Your task to perform on an android device: Open calendar and show me the fourth week of next month Image 0: 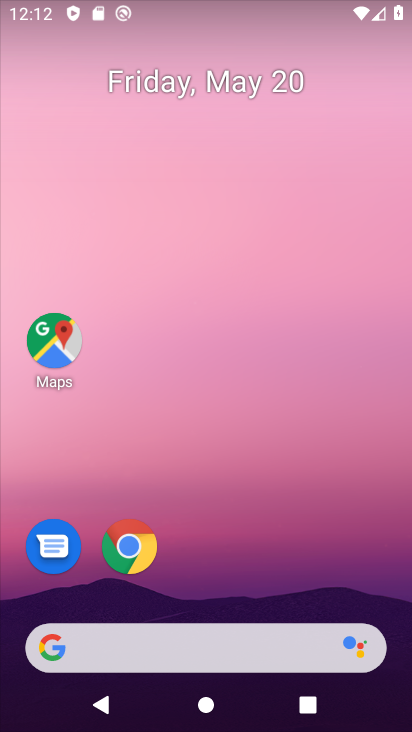
Step 0: drag from (276, 532) to (262, 52)
Your task to perform on an android device: Open calendar and show me the fourth week of next month Image 1: 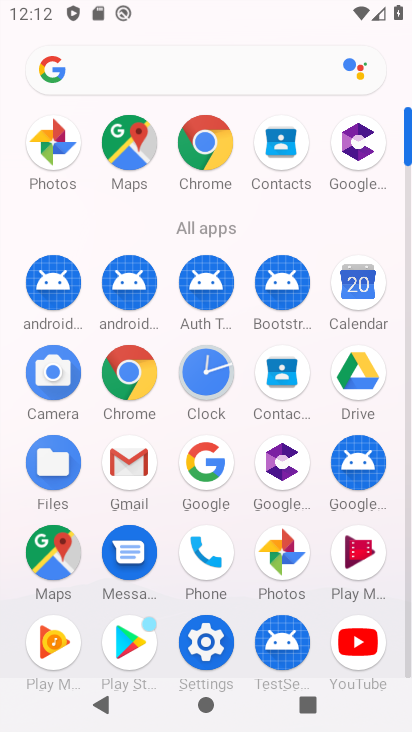
Step 1: click (358, 285)
Your task to perform on an android device: Open calendar and show me the fourth week of next month Image 2: 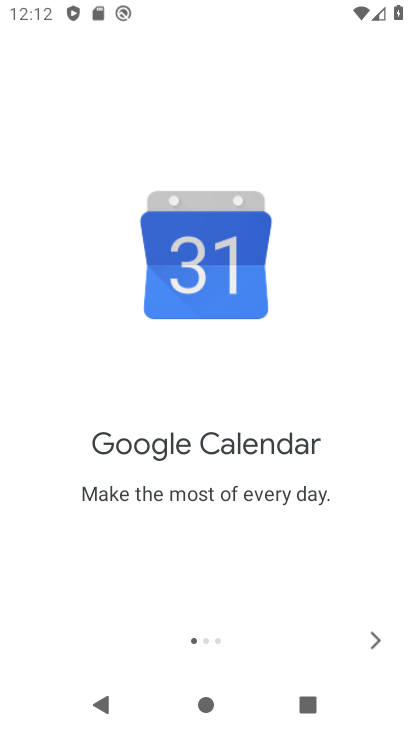
Step 2: click (370, 639)
Your task to perform on an android device: Open calendar and show me the fourth week of next month Image 3: 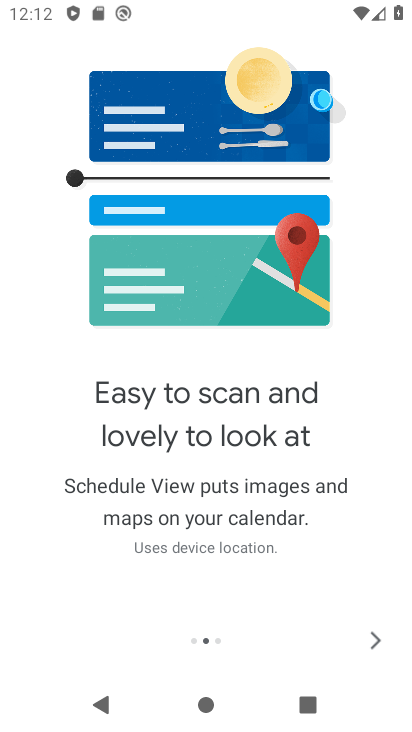
Step 3: click (370, 636)
Your task to perform on an android device: Open calendar and show me the fourth week of next month Image 4: 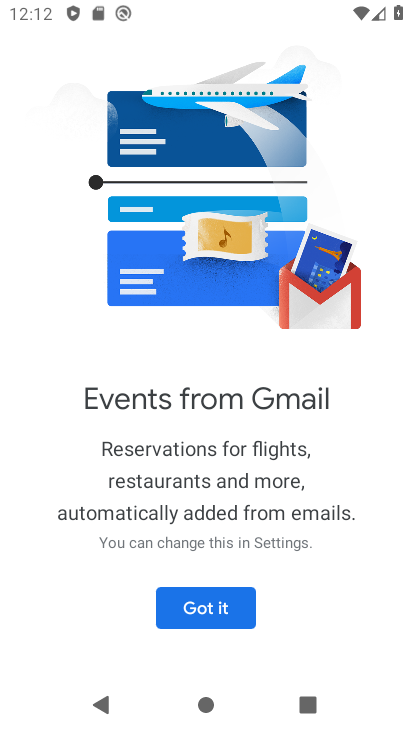
Step 4: click (242, 606)
Your task to perform on an android device: Open calendar and show me the fourth week of next month Image 5: 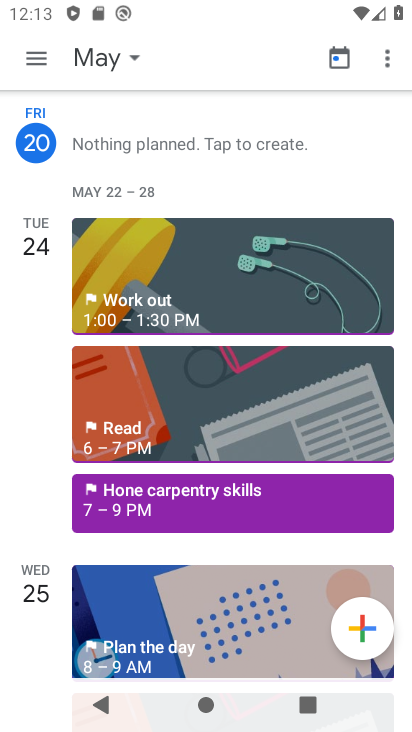
Step 5: click (40, 61)
Your task to perform on an android device: Open calendar and show me the fourth week of next month Image 6: 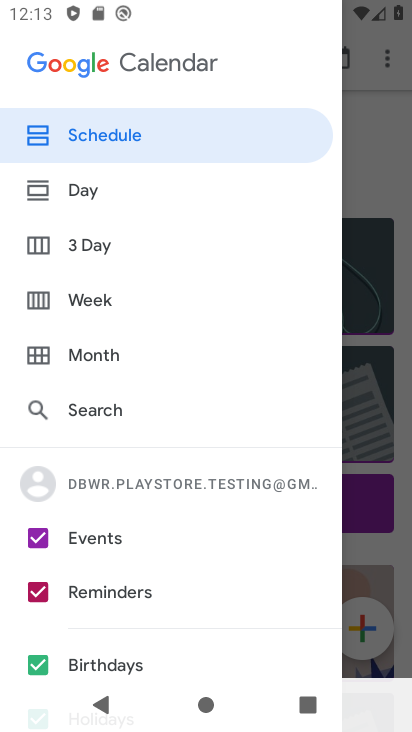
Step 6: click (42, 359)
Your task to perform on an android device: Open calendar and show me the fourth week of next month Image 7: 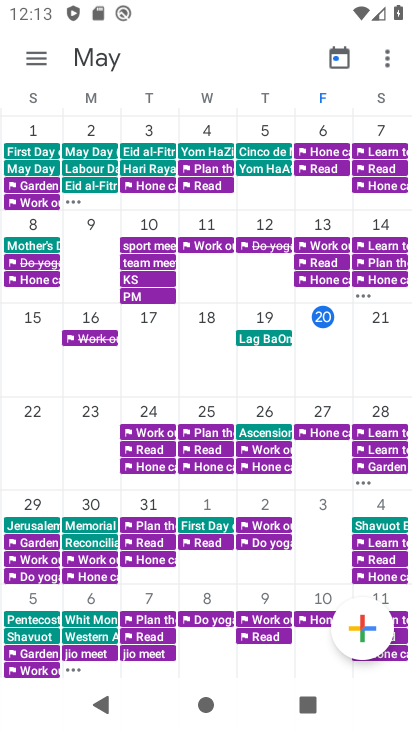
Step 7: drag from (375, 383) to (7, 386)
Your task to perform on an android device: Open calendar and show me the fourth week of next month Image 8: 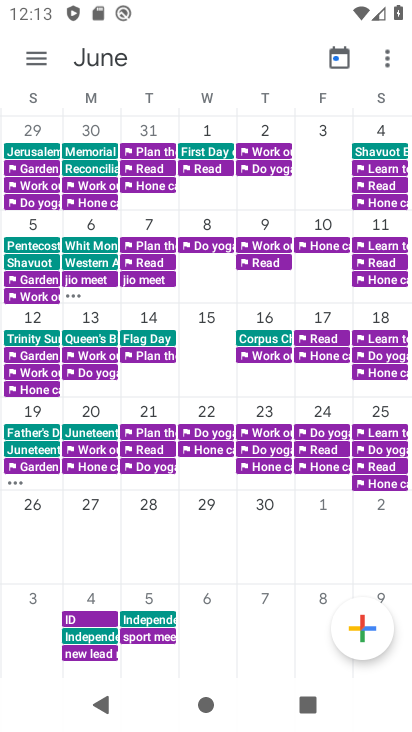
Step 8: click (30, 497)
Your task to perform on an android device: Open calendar and show me the fourth week of next month Image 9: 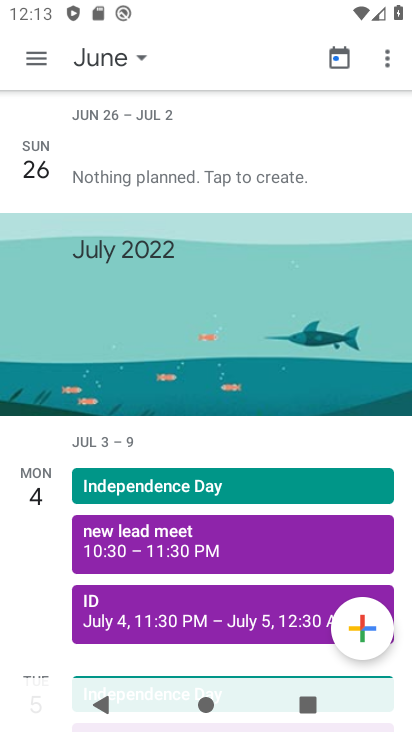
Step 9: click (35, 60)
Your task to perform on an android device: Open calendar and show me the fourth week of next month Image 10: 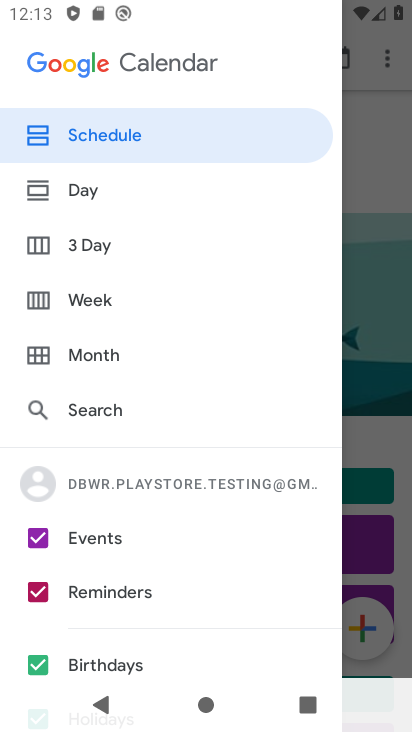
Step 10: click (43, 356)
Your task to perform on an android device: Open calendar and show me the fourth week of next month Image 11: 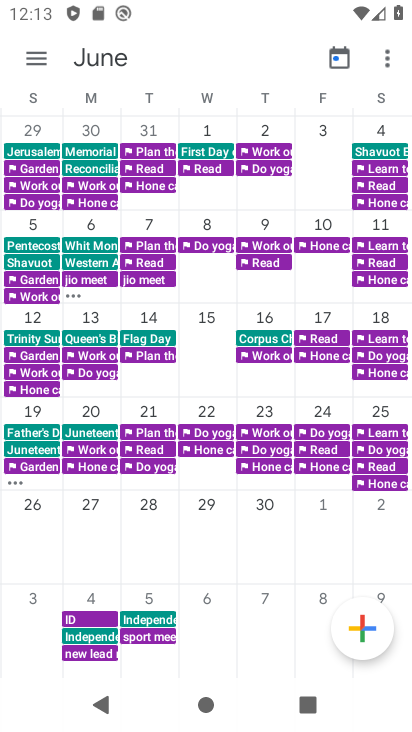
Step 11: task complete